Your task to perform on an android device: Open Google Maps Image 0: 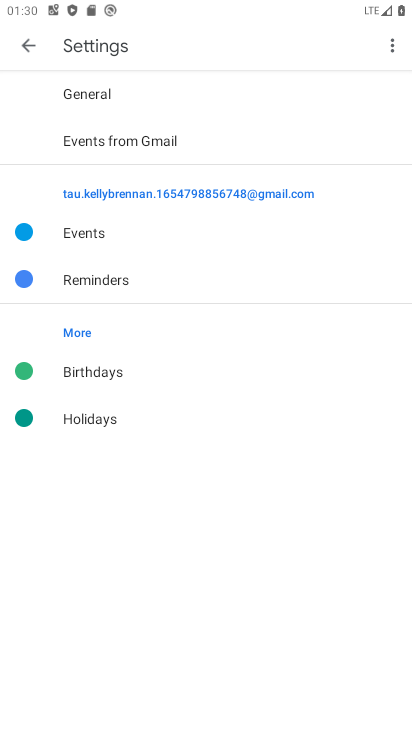
Step 0: press home button
Your task to perform on an android device: Open Google Maps Image 1: 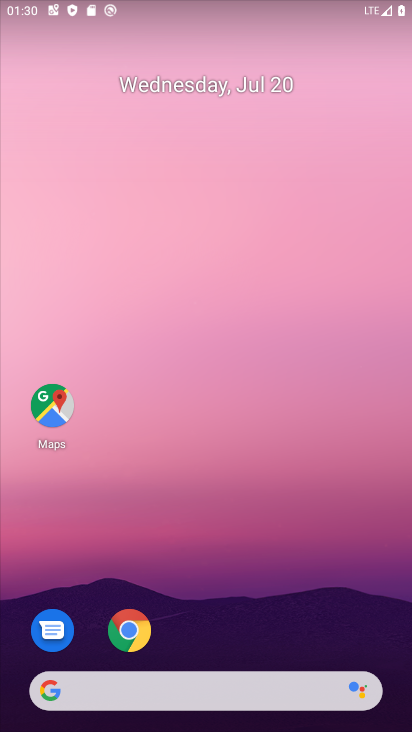
Step 1: click (55, 407)
Your task to perform on an android device: Open Google Maps Image 2: 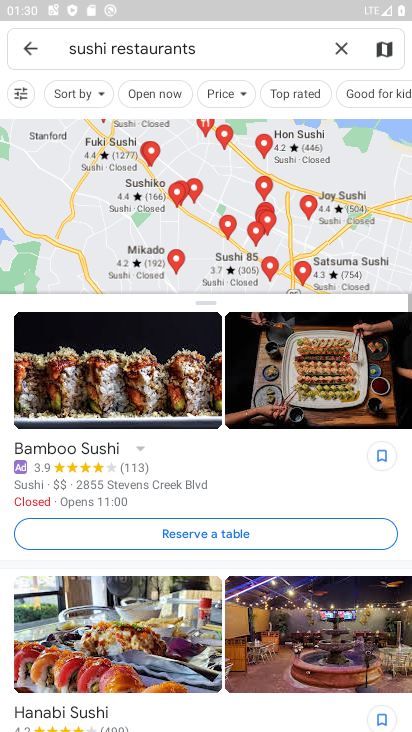
Step 2: task complete